Your task to perform on an android device: Go to display settings Image 0: 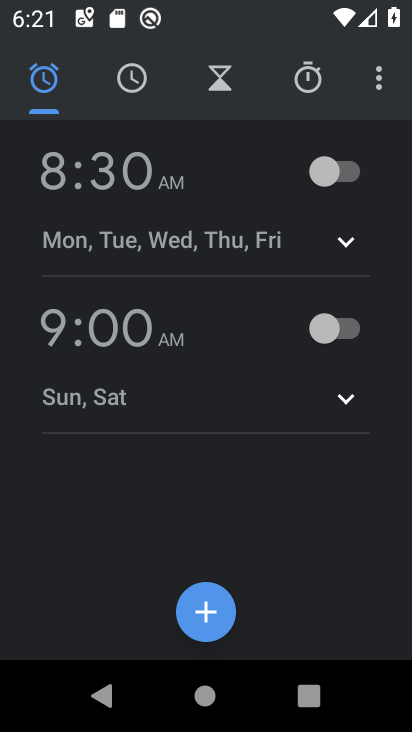
Step 0: press home button
Your task to perform on an android device: Go to display settings Image 1: 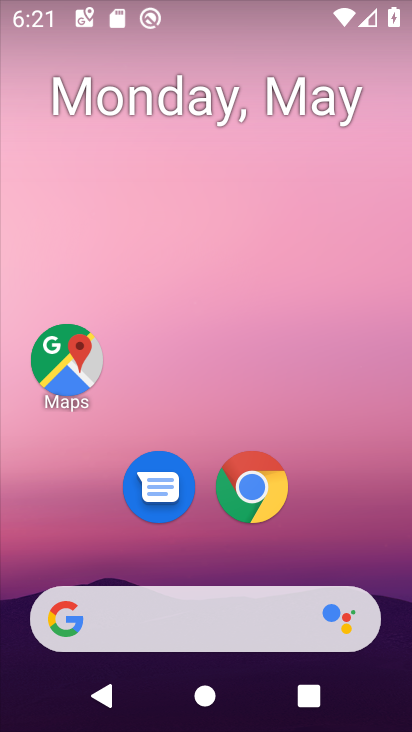
Step 1: drag from (210, 555) to (261, 0)
Your task to perform on an android device: Go to display settings Image 2: 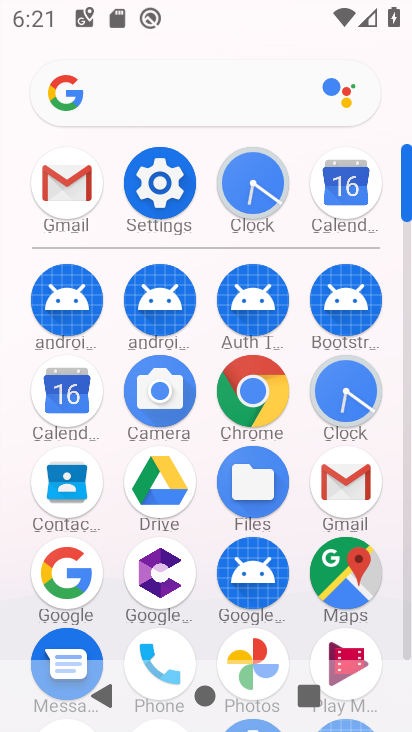
Step 2: click (156, 182)
Your task to perform on an android device: Go to display settings Image 3: 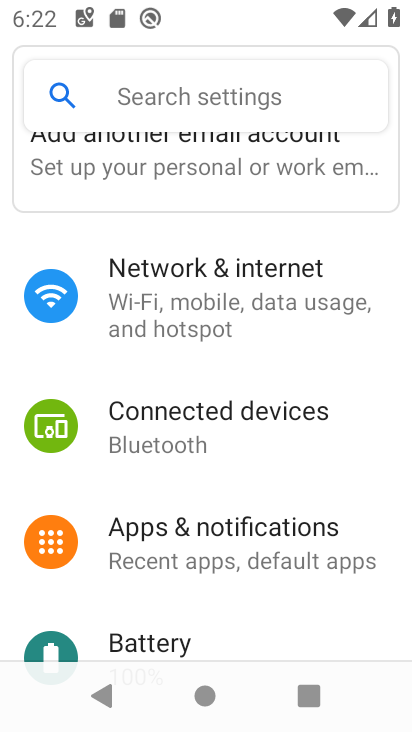
Step 3: drag from (237, 625) to (276, 284)
Your task to perform on an android device: Go to display settings Image 4: 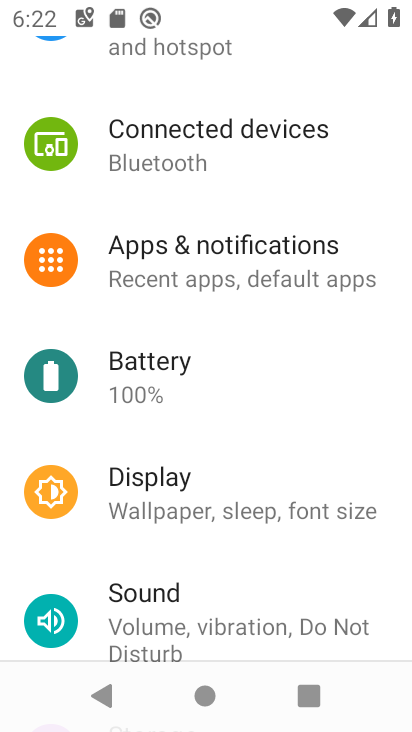
Step 4: click (202, 488)
Your task to perform on an android device: Go to display settings Image 5: 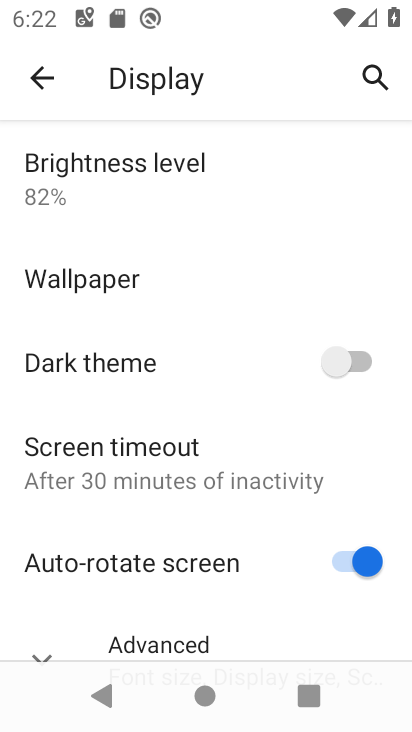
Step 5: drag from (201, 607) to (243, 185)
Your task to perform on an android device: Go to display settings Image 6: 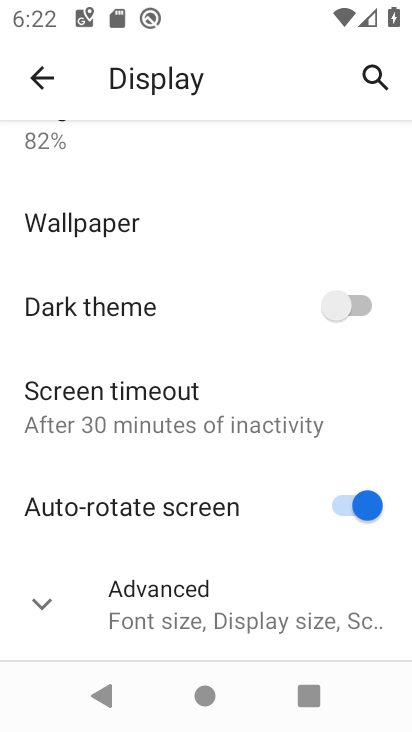
Step 6: click (43, 594)
Your task to perform on an android device: Go to display settings Image 7: 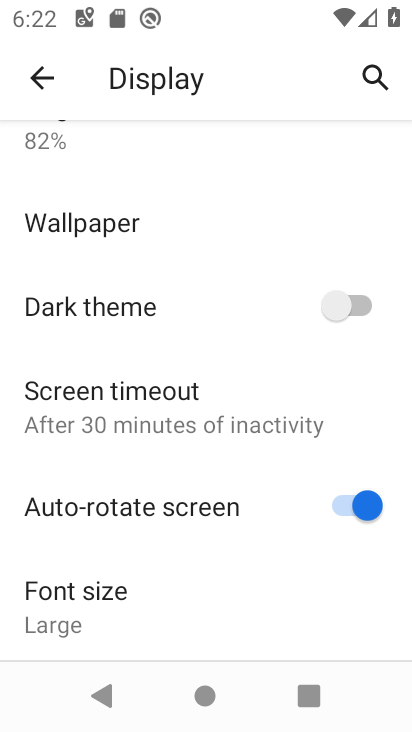
Step 7: task complete